Your task to perform on an android device: Open ESPN.com Image 0: 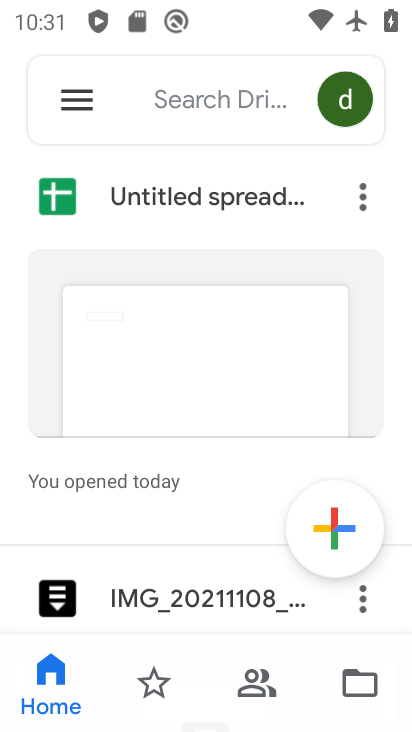
Step 0: press back button
Your task to perform on an android device: Open ESPN.com Image 1: 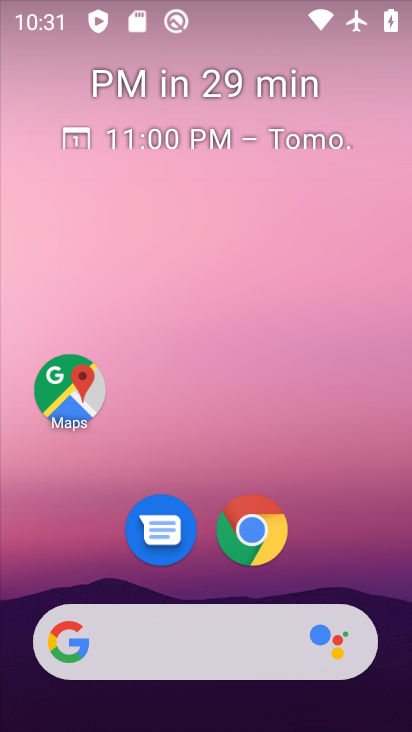
Step 1: drag from (382, 665) to (203, 177)
Your task to perform on an android device: Open ESPN.com Image 2: 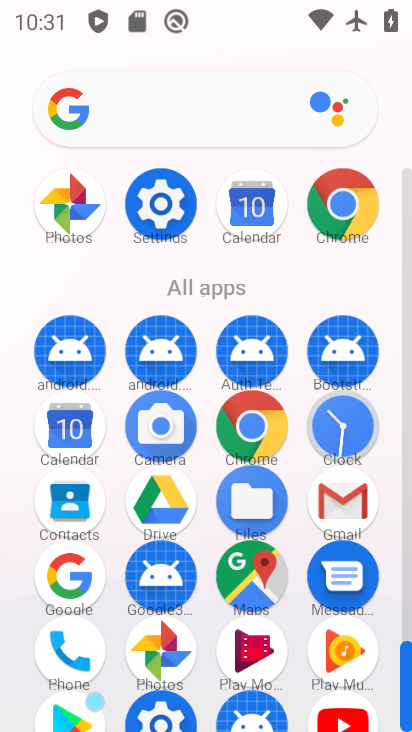
Step 2: click (338, 201)
Your task to perform on an android device: Open ESPN.com Image 3: 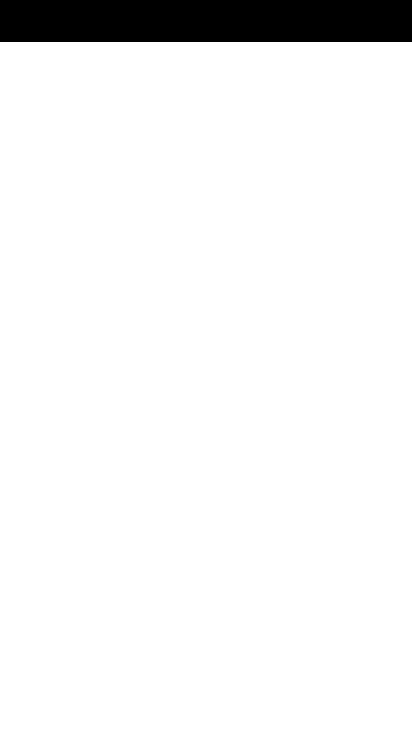
Step 3: click (339, 201)
Your task to perform on an android device: Open ESPN.com Image 4: 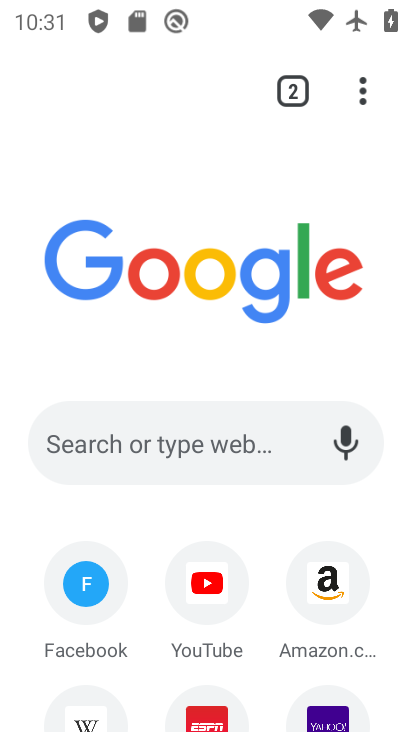
Step 4: drag from (230, 602) to (114, 191)
Your task to perform on an android device: Open ESPN.com Image 5: 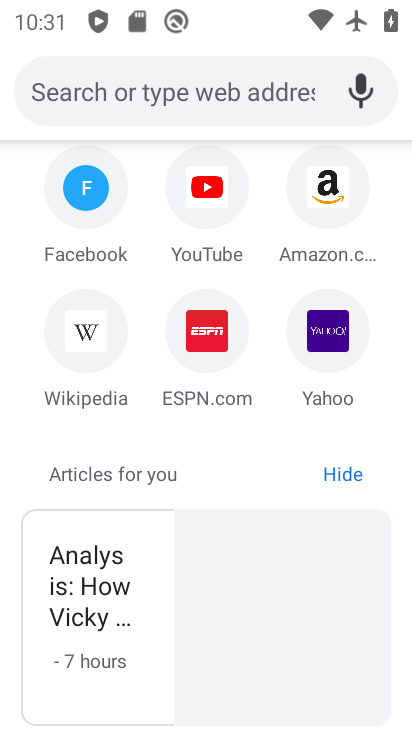
Step 5: click (190, 109)
Your task to perform on an android device: Open ESPN.com Image 6: 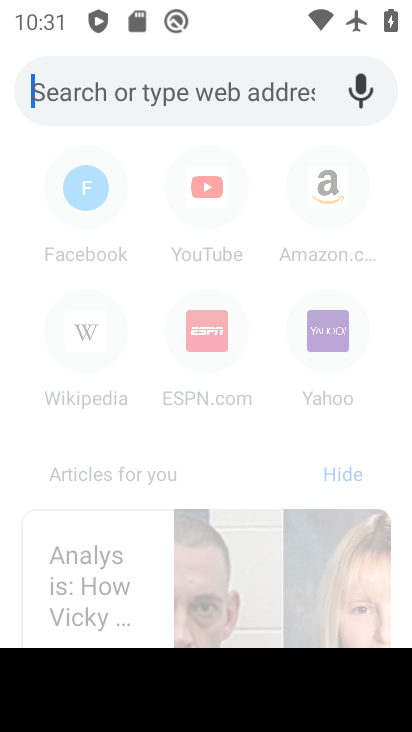
Step 6: click (207, 331)
Your task to perform on an android device: Open ESPN.com Image 7: 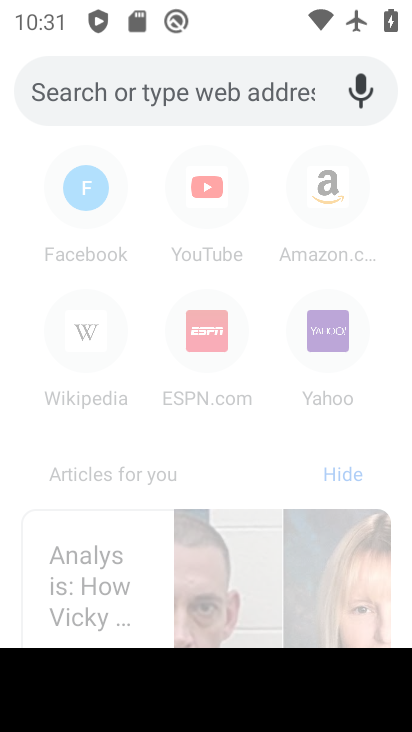
Step 7: click (205, 349)
Your task to perform on an android device: Open ESPN.com Image 8: 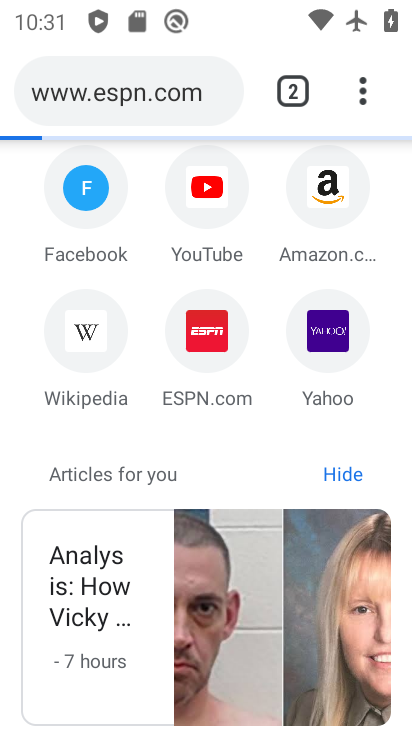
Step 8: click (206, 340)
Your task to perform on an android device: Open ESPN.com Image 9: 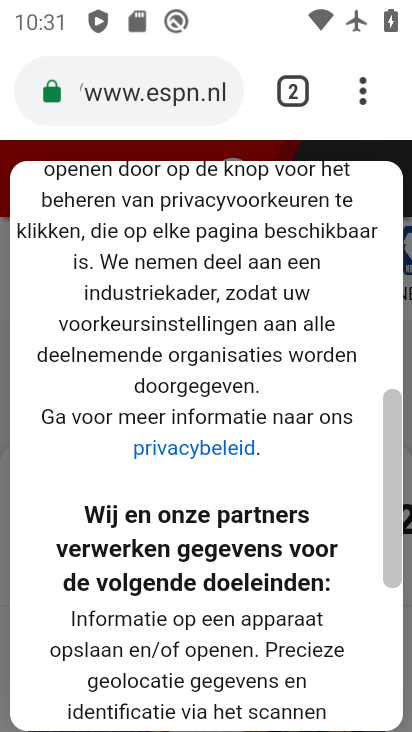
Step 9: task complete